Your task to perform on an android device: change the clock style Image 0: 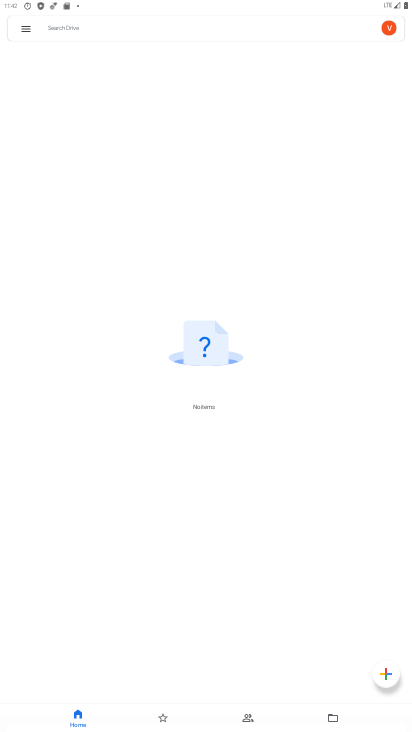
Step 0: press home button
Your task to perform on an android device: change the clock style Image 1: 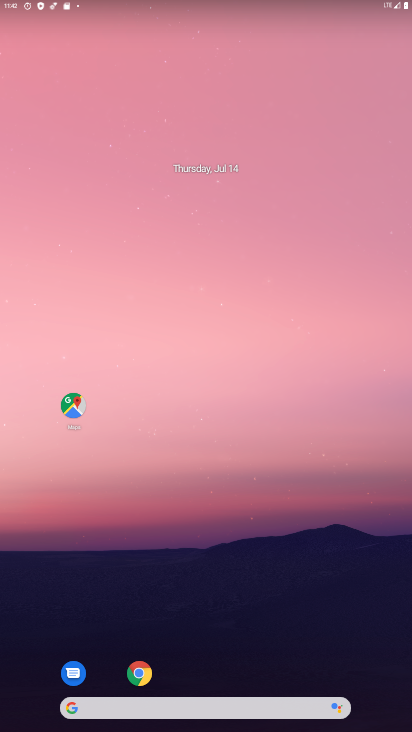
Step 1: drag from (279, 620) to (322, 146)
Your task to perform on an android device: change the clock style Image 2: 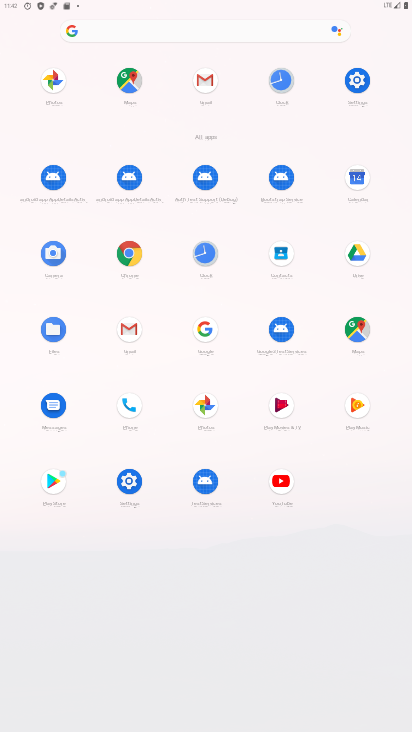
Step 2: click (209, 252)
Your task to perform on an android device: change the clock style Image 3: 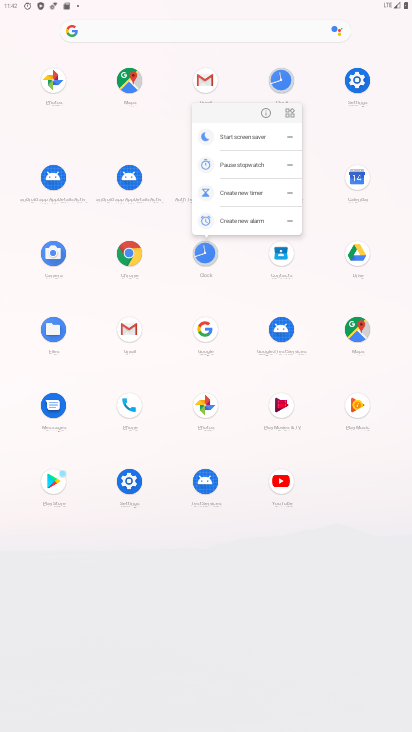
Step 3: click (268, 112)
Your task to perform on an android device: change the clock style Image 4: 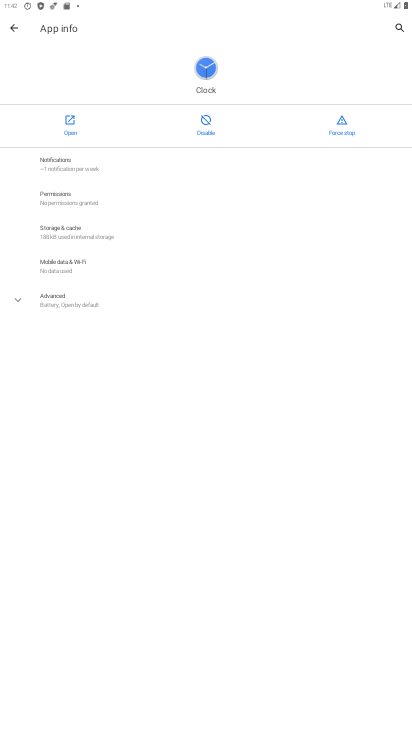
Step 4: click (64, 132)
Your task to perform on an android device: change the clock style Image 5: 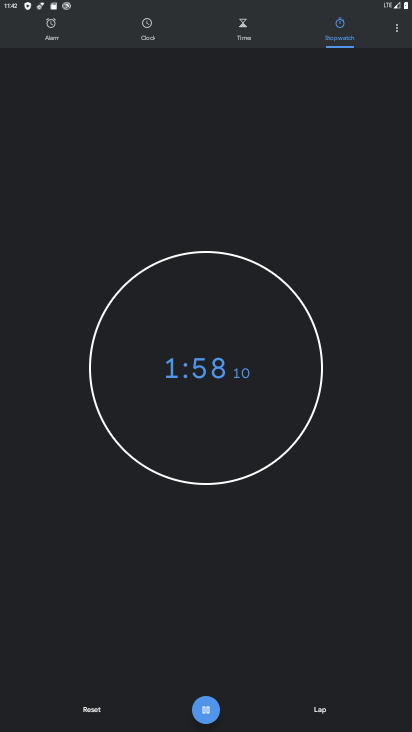
Step 5: click (388, 28)
Your task to perform on an android device: change the clock style Image 6: 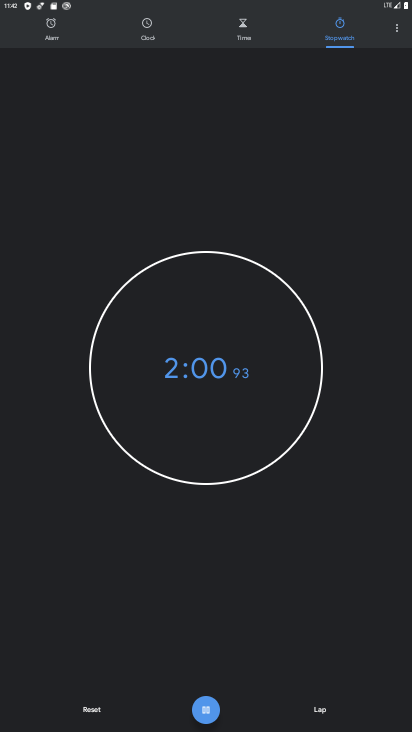
Step 6: click (395, 28)
Your task to perform on an android device: change the clock style Image 7: 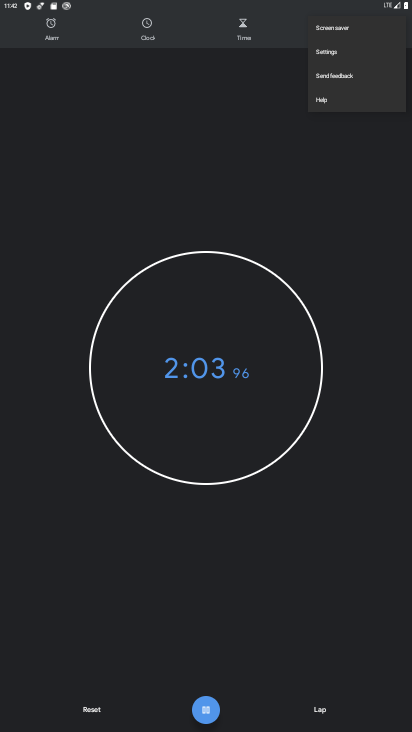
Step 7: click (341, 56)
Your task to perform on an android device: change the clock style Image 8: 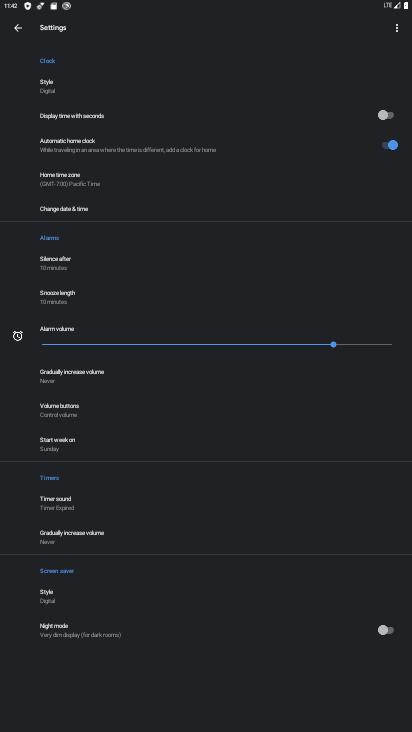
Step 8: click (54, 94)
Your task to perform on an android device: change the clock style Image 9: 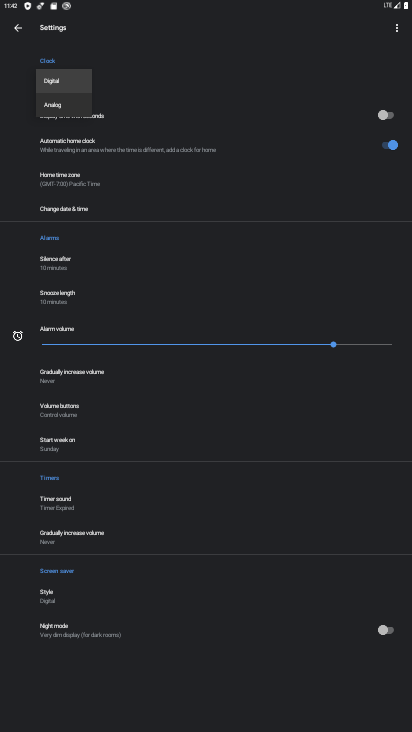
Step 9: click (58, 106)
Your task to perform on an android device: change the clock style Image 10: 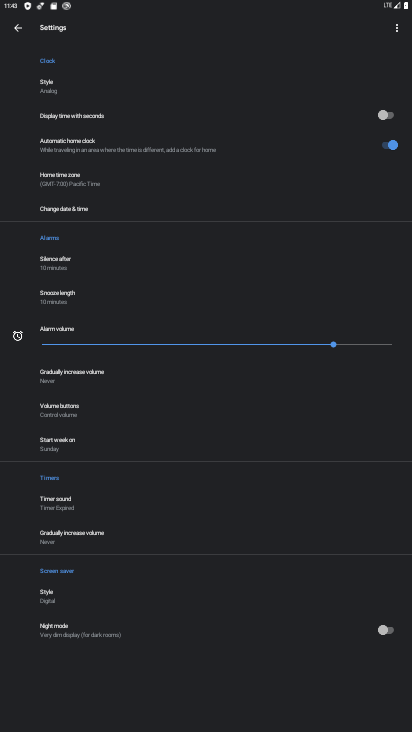
Step 10: task complete